Your task to perform on an android device: Open Youtube and go to the subscriptions tab Image 0: 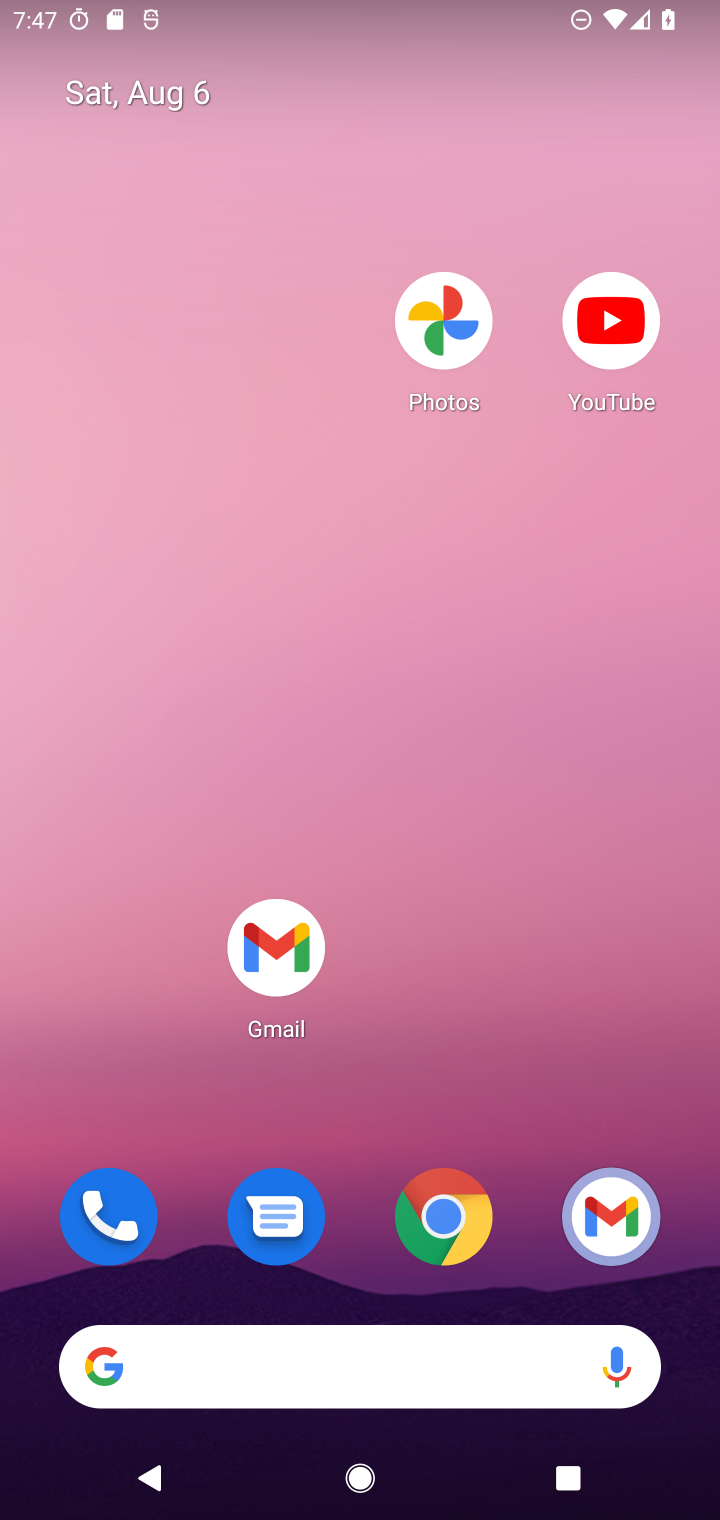
Step 0: drag from (477, 1082) to (444, 119)
Your task to perform on an android device: Open Youtube and go to the subscriptions tab Image 1: 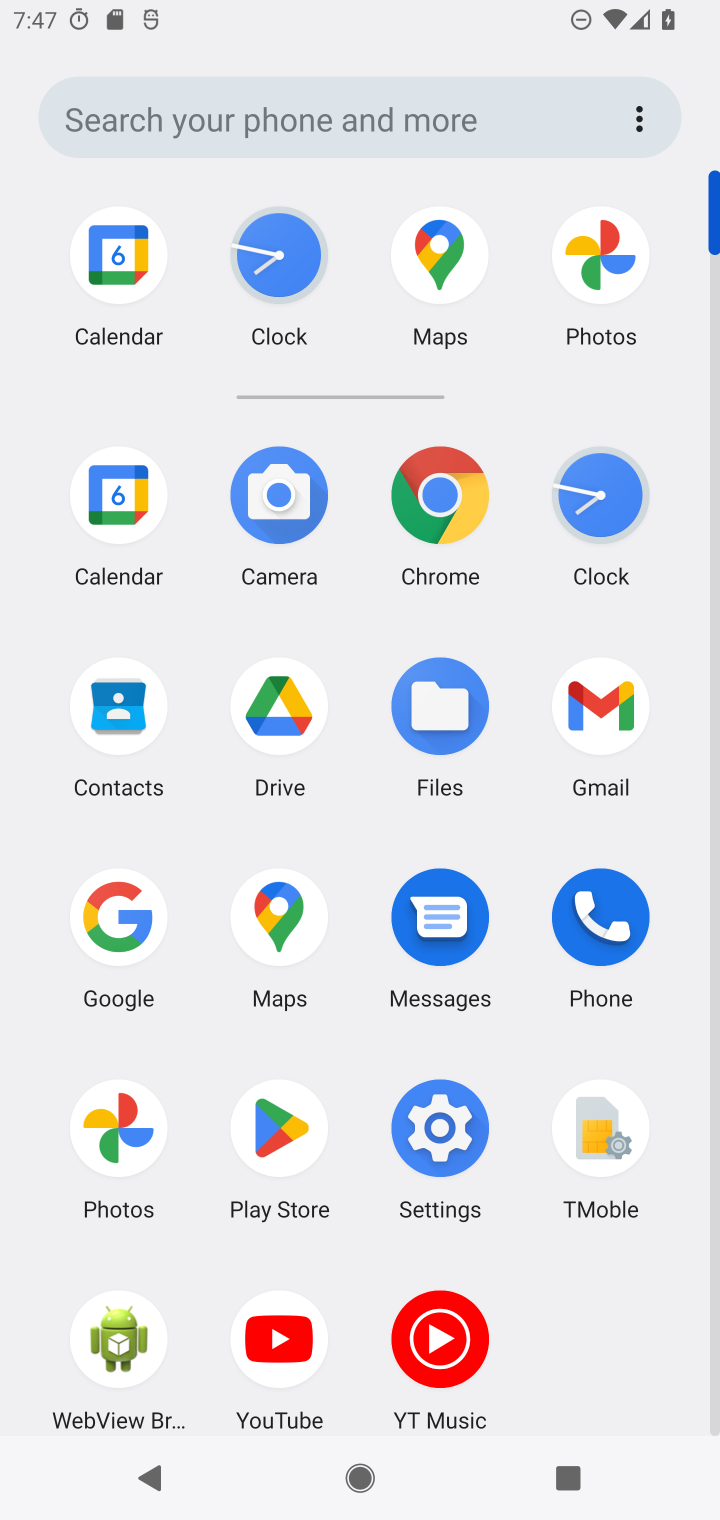
Step 1: click (281, 1353)
Your task to perform on an android device: Open Youtube and go to the subscriptions tab Image 2: 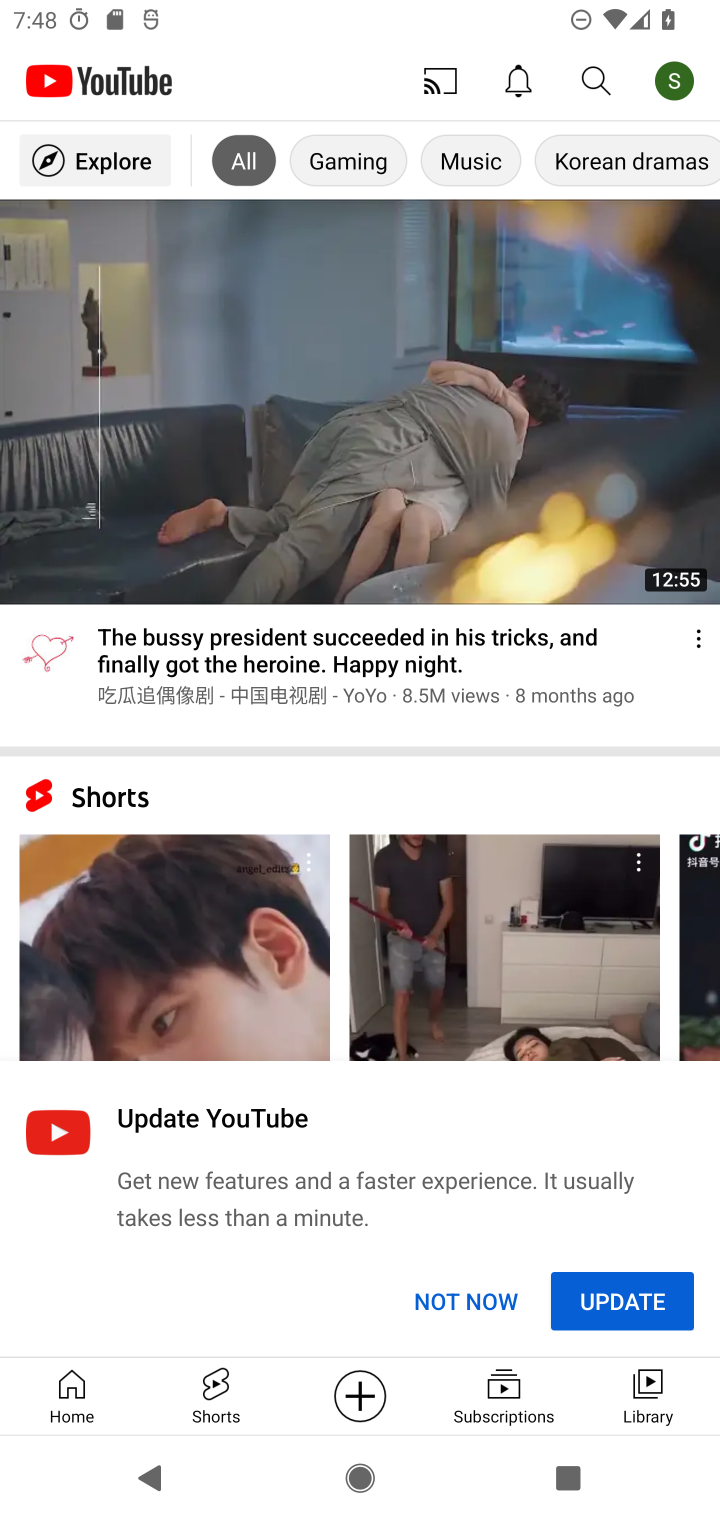
Step 2: click (494, 1376)
Your task to perform on an android device: Open Youtube and go to the subscriptions tab Image 3: 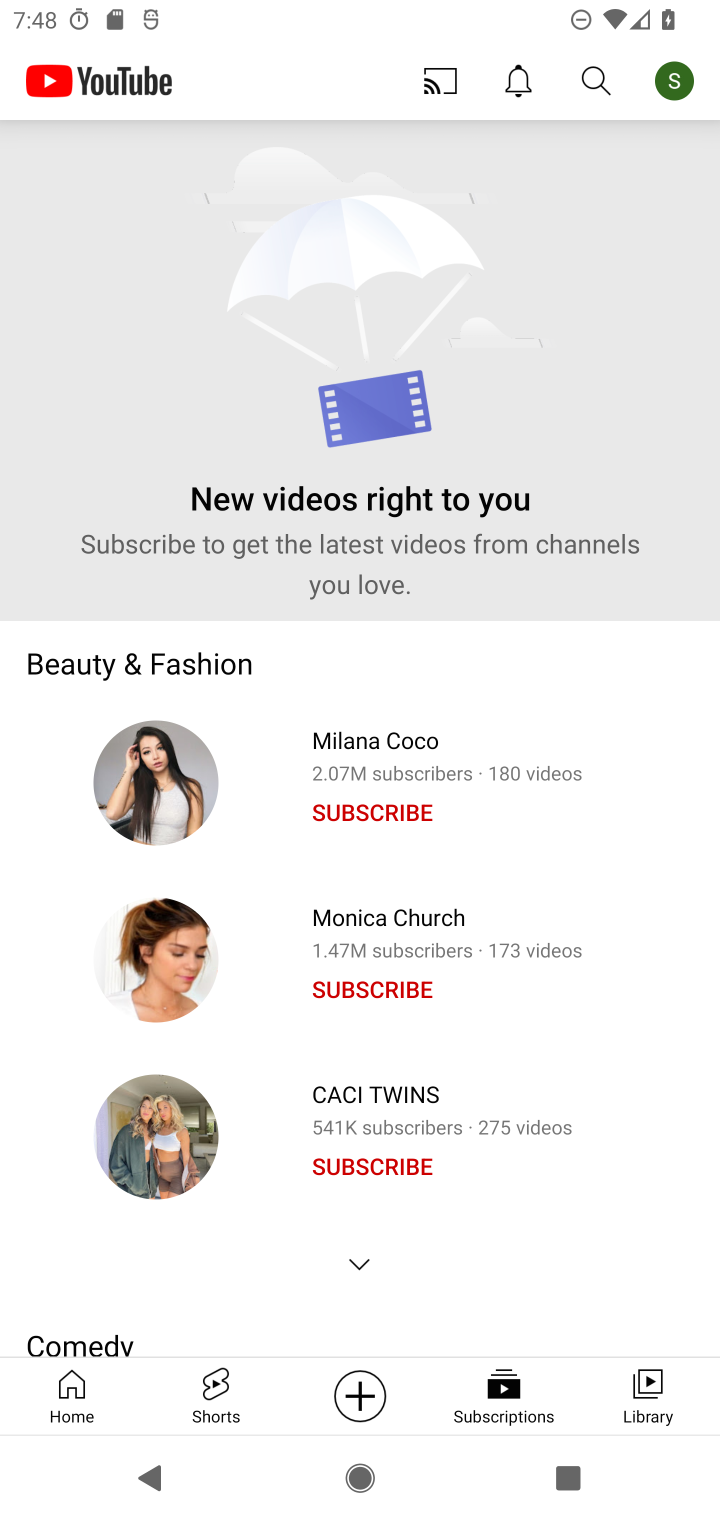
Step 3: task complete